Your task to perform on an android device: turn on improve location accuracy Image 0: 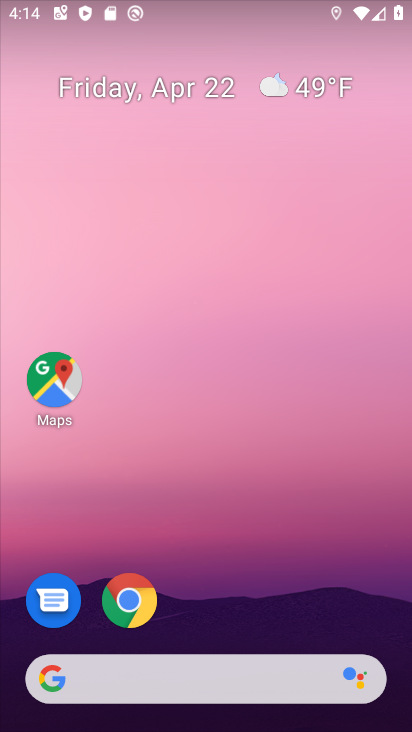
Step 0: drag from (223, 543) to (256, 29)
Your task to perform on an android device: turn on improve location accuracy Image 1: 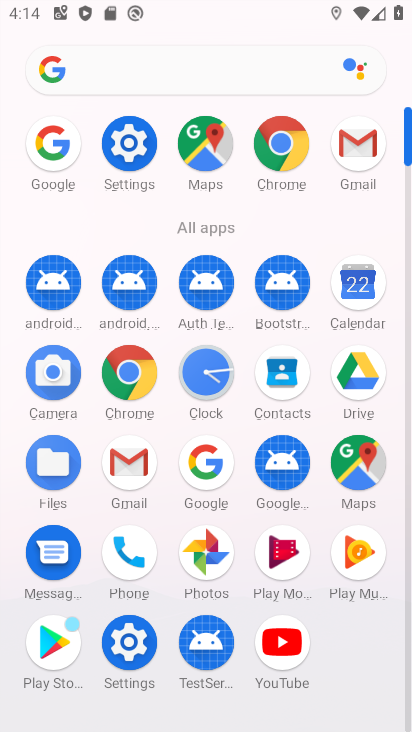
Step 1: click (128, 144)
Your task to perform on an android device: turn on improve location accuracy Image 2: 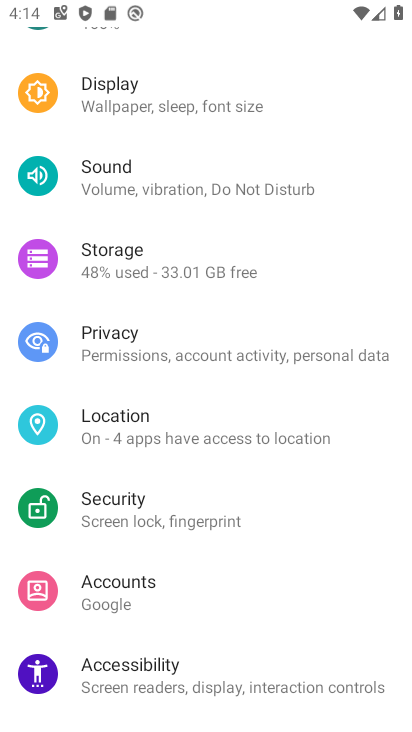
Step 2: drag from (196, 541) to (201, 415)
Your task to perform on an android device: turn on improve location accuracy Image 3: 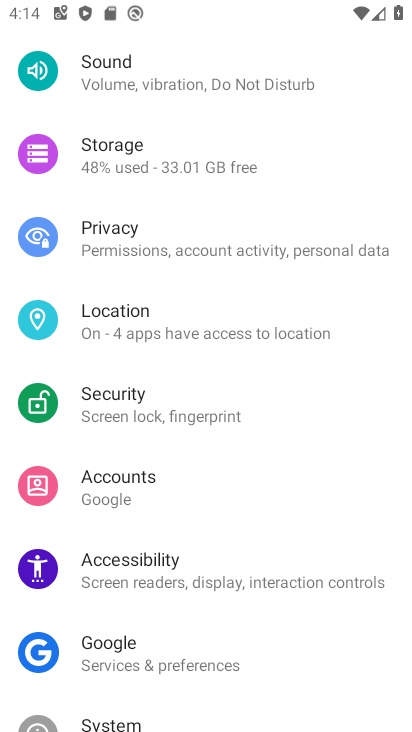
Step 3: click (221, 330)
Your task to perform on an android device: turn on improve location accuracy Image 4: 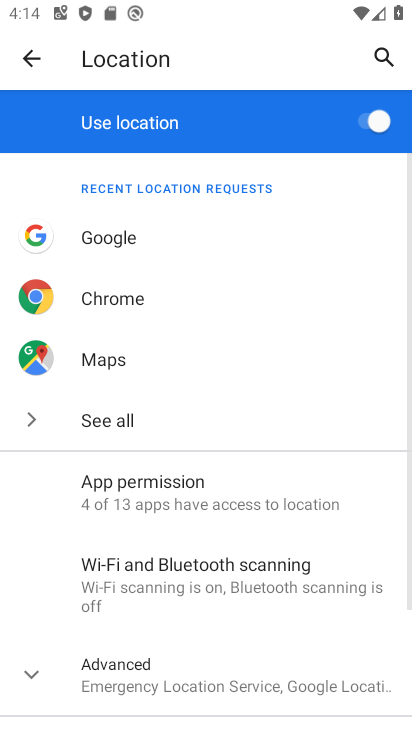
Step 4: click (184, 684)
Your task to perform on an android device: turn on improve location accuracy Image 5: 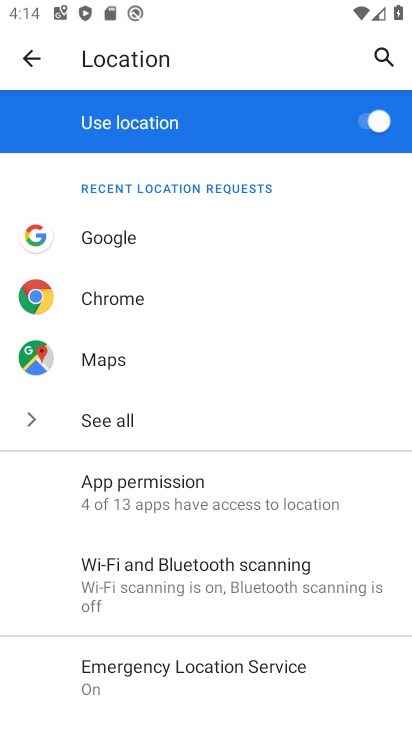
Step 5: drag from (185, 528) to (218, 406)
Your task to perform on an android device: turn on improve location accuracy Image 6: 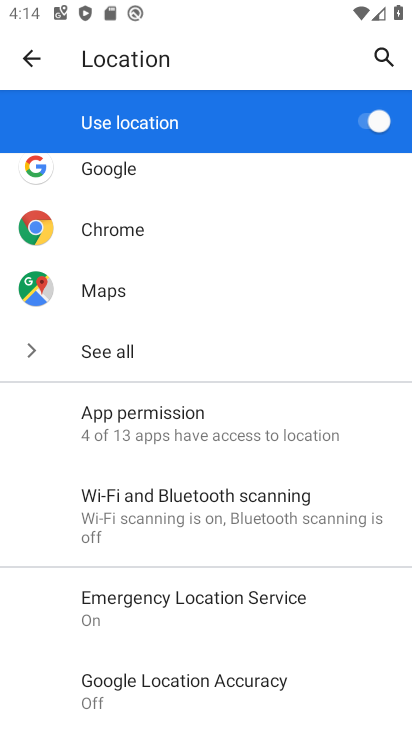
Step 6: drag from (158, 572) to (218, 384)
Your task to perform on an android device: turn on improve location accuracy Image 7: 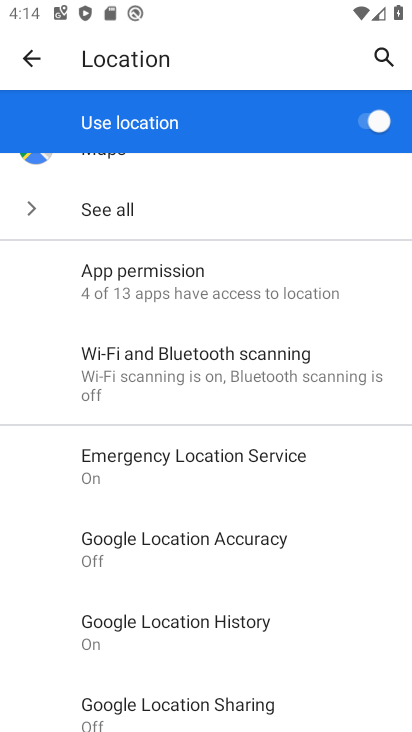
Step 7: click (186, 537)
Your task to perform on an android device: turn on improve location accuracy Image 8: 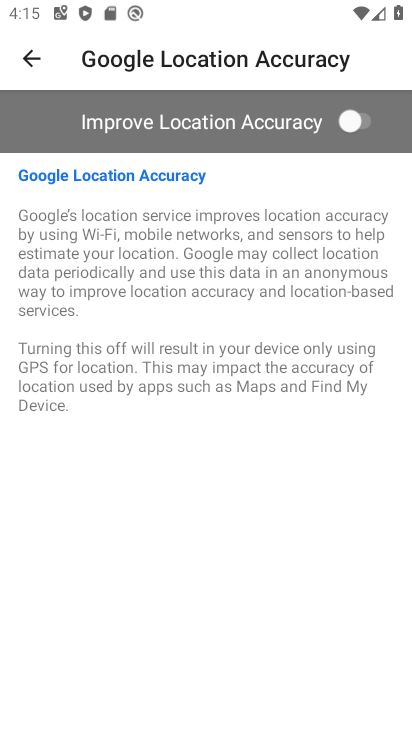
Step 8: click (349, 124)
Your task to perform on an android device: turn on improve location accuracy Image 9: 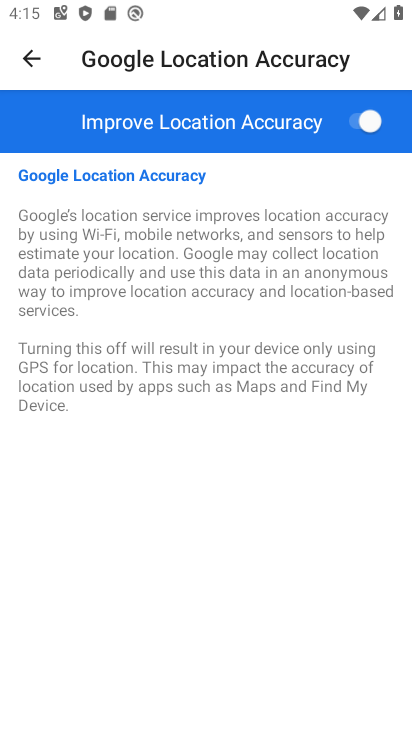
Step 9: task complete